Your task to perform on an android device: Do I have any events today? Image 0: 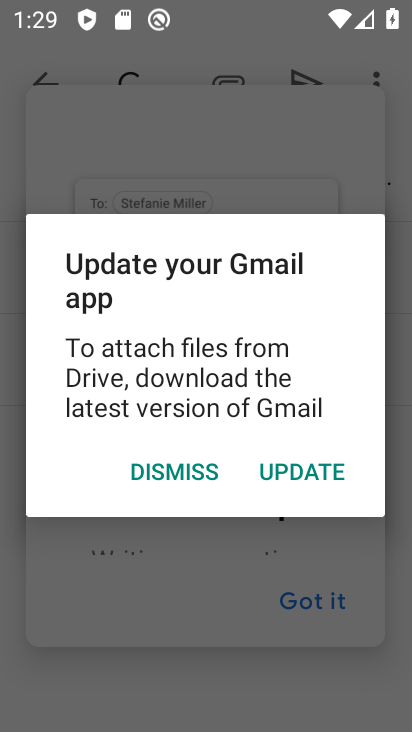
Step 0: press home button
Your task to perform on an android device: Do I have any events today? Image 1: 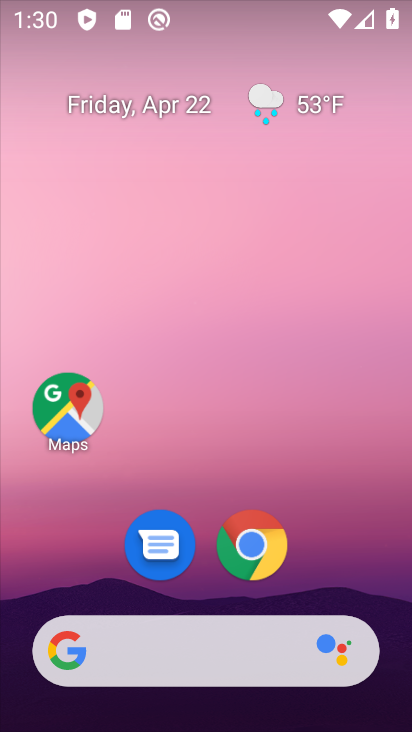
Step 1: drag from (213, 454) to (220, 44)
Your task to perform on an android device: Do I have any events today? Image 2: 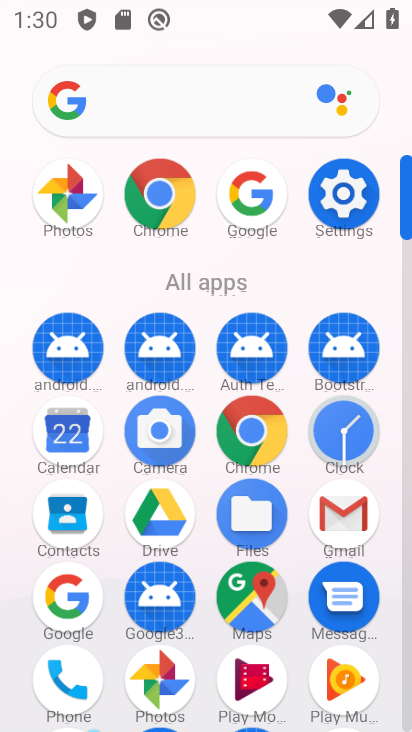
Step 2: click (71, 431)
Your task to perform on an android device: Do I have any events today? Image 3: 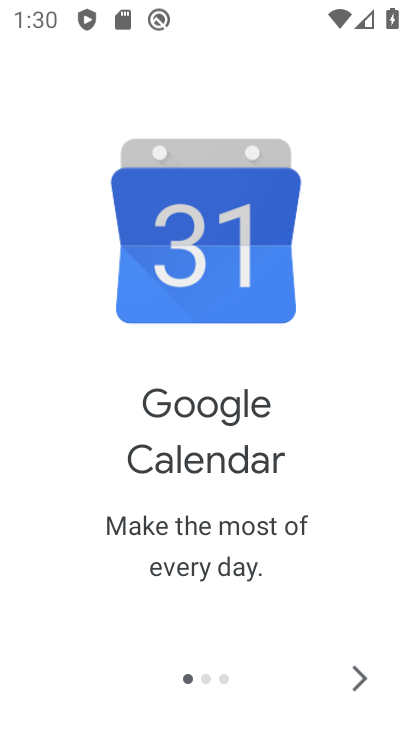
Step 3: click (362, 681)
Your task to perform on an android device: Do I have any events today? Image 4: 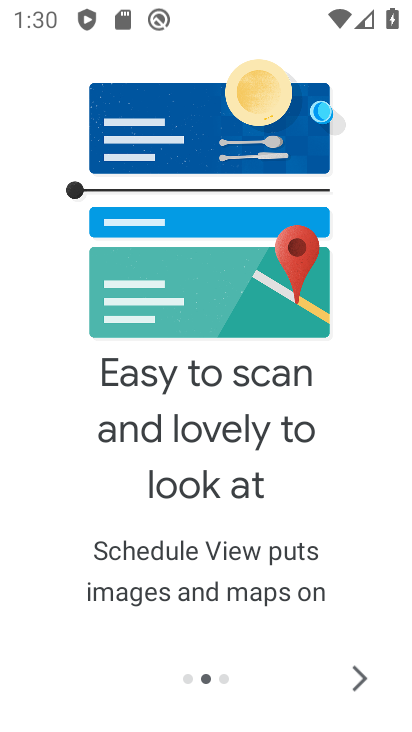
Step 4: click (362, 681)
Your task to perform on an android device: Do I have any events today? Image 5: 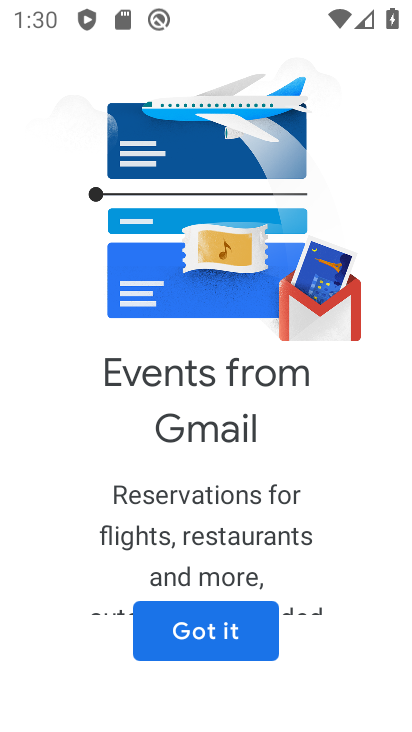
Step 5: click (225, 635)
Your task to perform on an android device: Do I have any events today? Image 6: 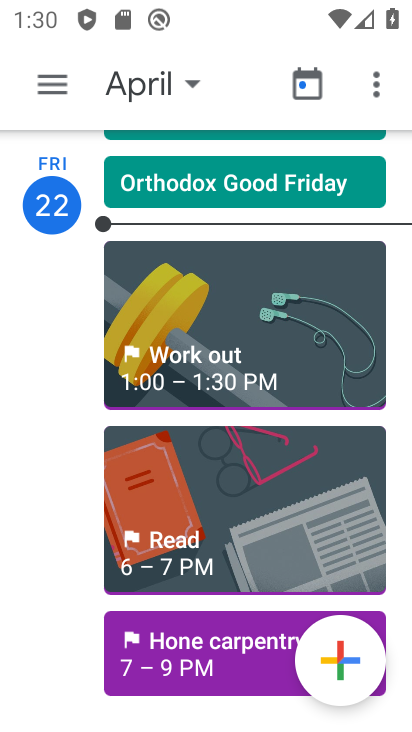
Step 6: click (193, 82)
Your task to perform on an android device: Do I have any events today? Image 7: 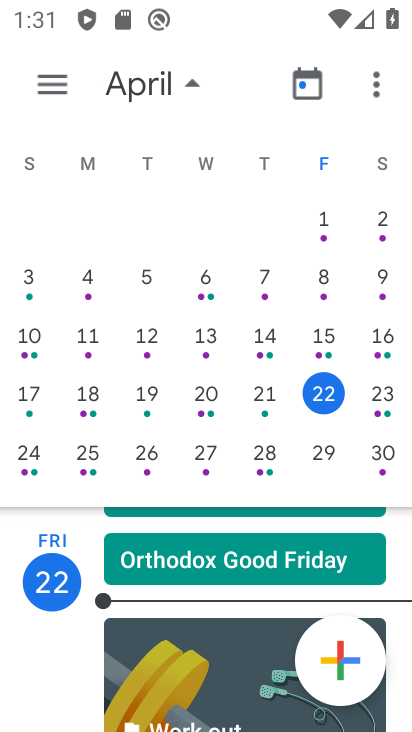
Step 7: task complete